Your task to perform on an android device: When is my next appointment? Image 0: 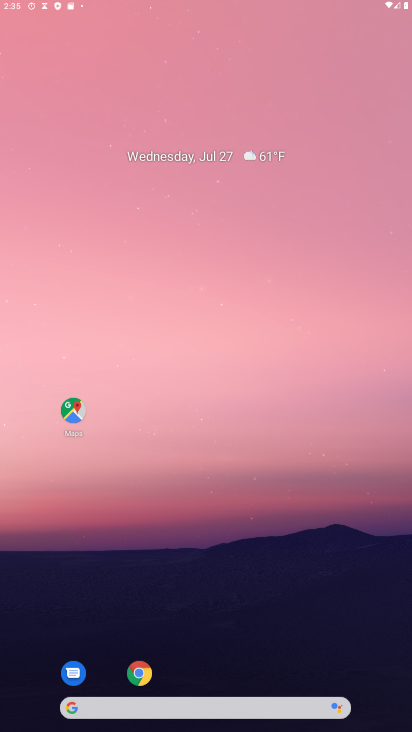
Step 0: click (105, 703)
Your task to perform on an android device: When is my next appointment? Image 1: 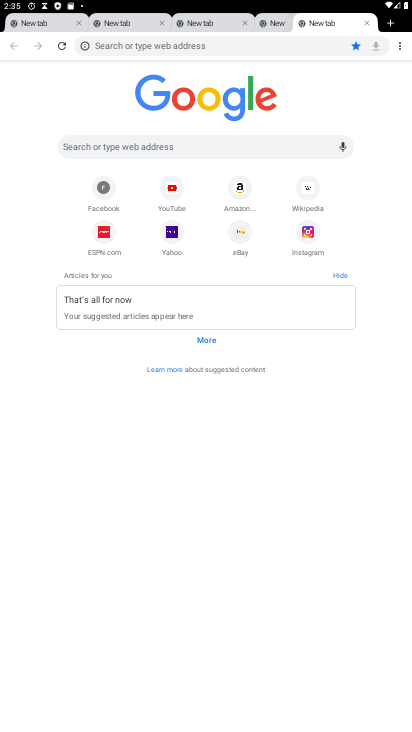
Step 1: press home button
Your task to perform on an android device: When is my next appointment? Image 2: 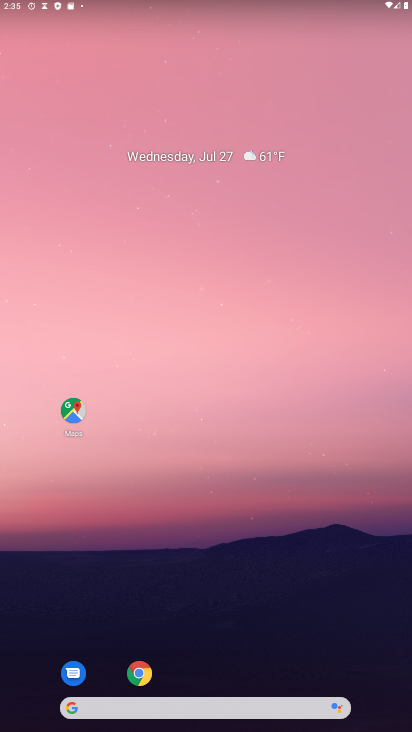
Step 2: drag from (136, 396) to (250, 17)
Your task to perform on an android device: When is my next appointment? Image 3: 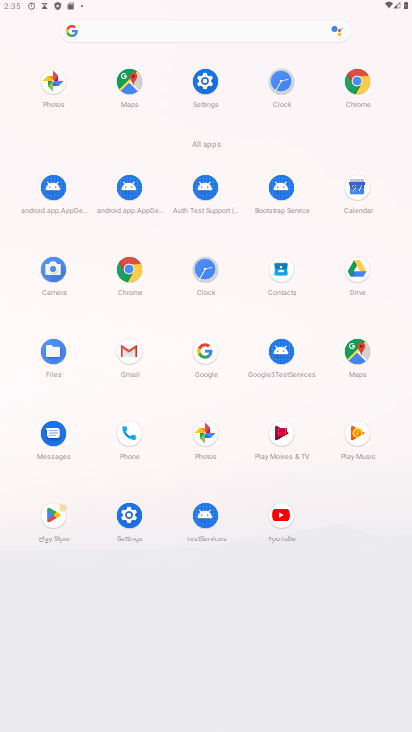
Step 3: click (352, 195)
Your task to perform on an android device: When is my next appointment? Image 4: 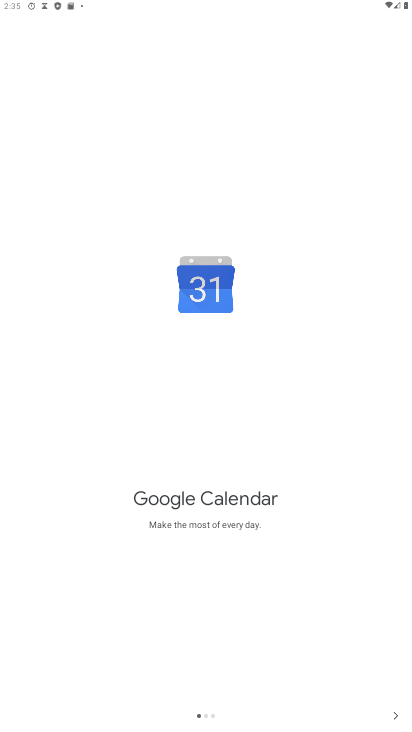
Step 4: click (395, 707)
Your task to perform on an android device: When is my next appointment? Image 5: 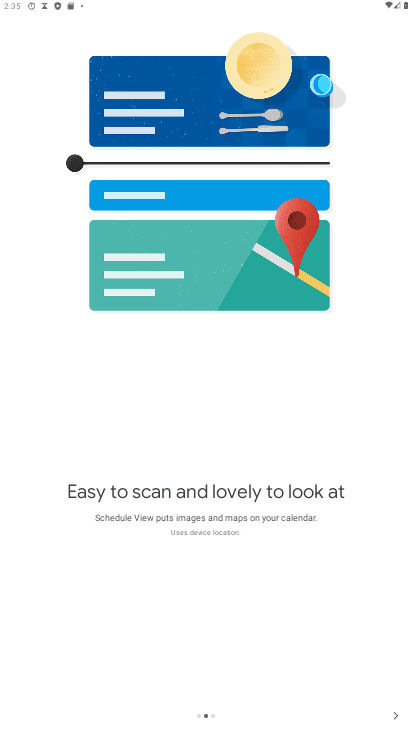
Step 5: click (393, 716)
Your task to perform on an android device: When is my next appointment? Image 6: 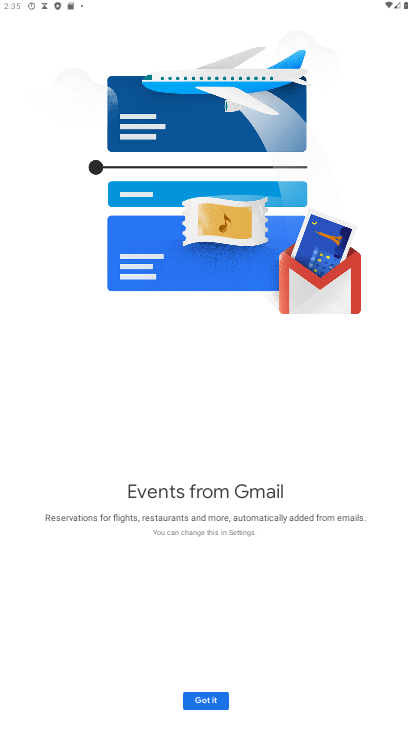
Step 6: click (218, 693)
Your task to perform on an android device: When is my next appointment? Image 7: 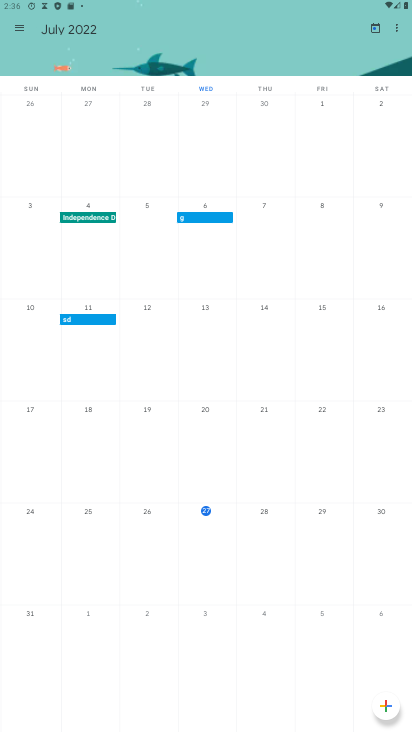
Step 7: click (27, 24)
Your task to perform on an android device: When is my next appointment? Image 8: 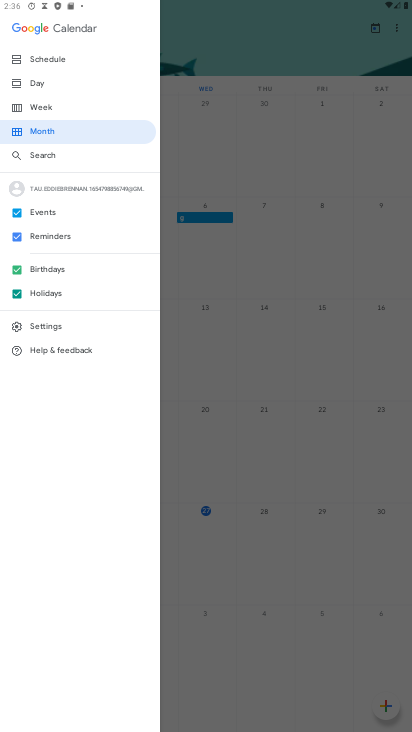
Step 8: click (281, 46)
Your task to perform on an android device: When is my next appointment? Image 9: 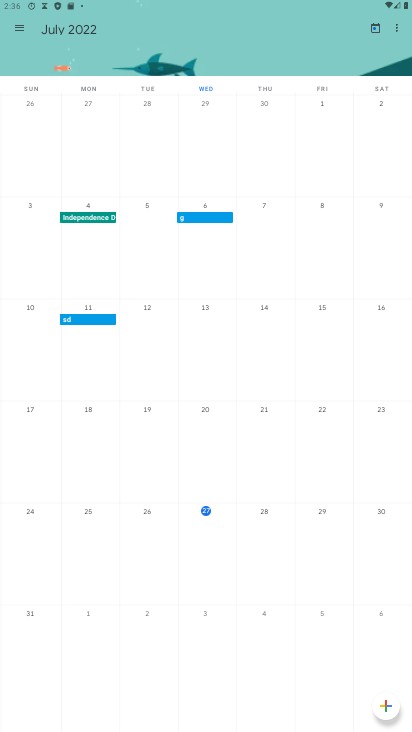
Step 9: click (78, 12)
Your task to perform on an android device: When is my next appointment? Image 10: 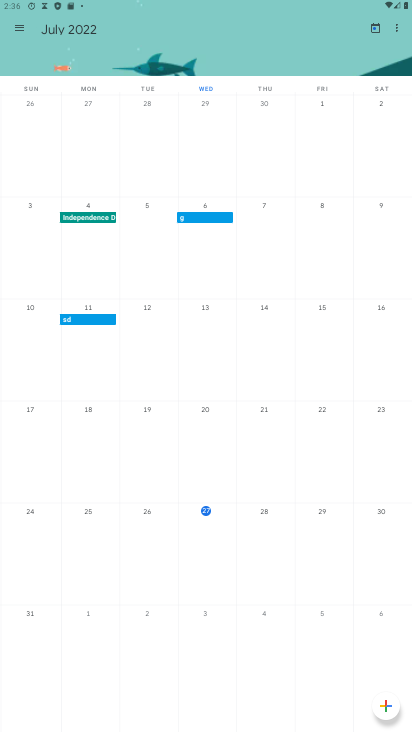
Step 10: click (31, 27)
Your task to perform on an android device: When is my next appointment? Image 11: 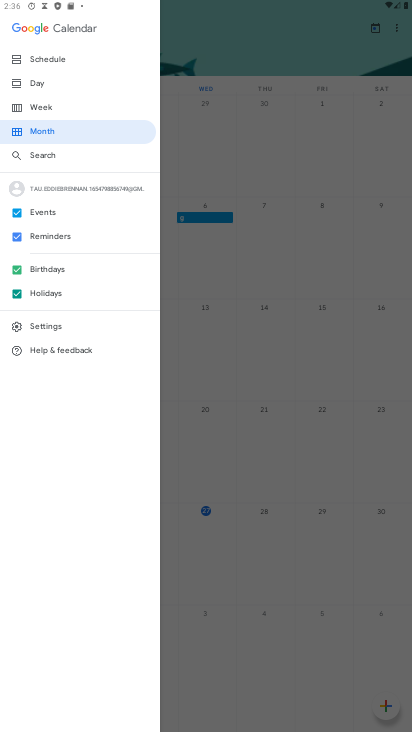
Step 11: click (46, 112)
Your task to perform on an android device: When is my next appointment? Image 12: 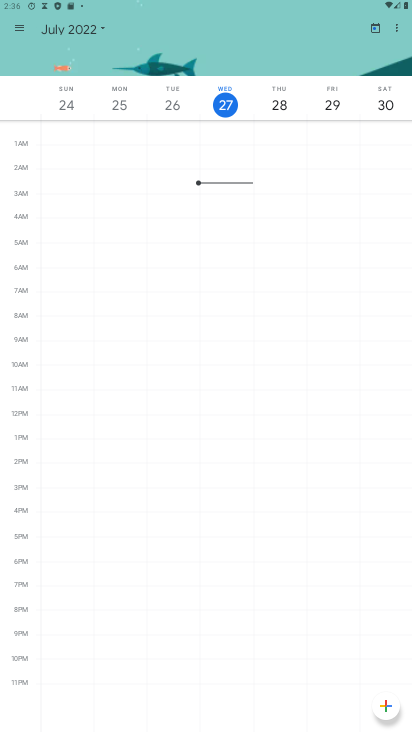
Step 12: click (23, 26)
Your task to perform on an android device: When is my next appointment? Image 13: 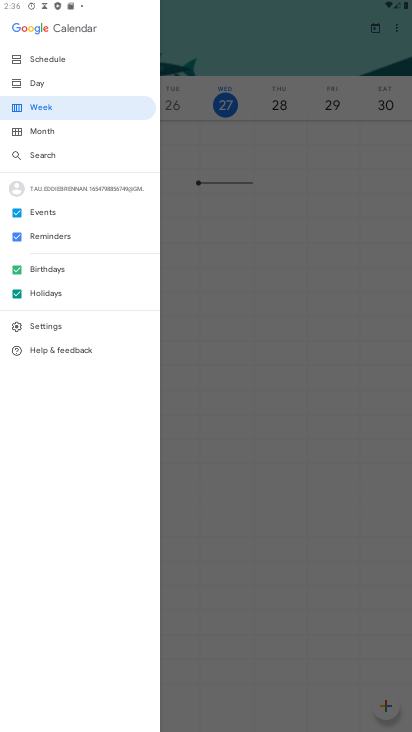
Step 13: click (81, 60)
Your task to perform on an android device: When is my next appointment? Image 14: 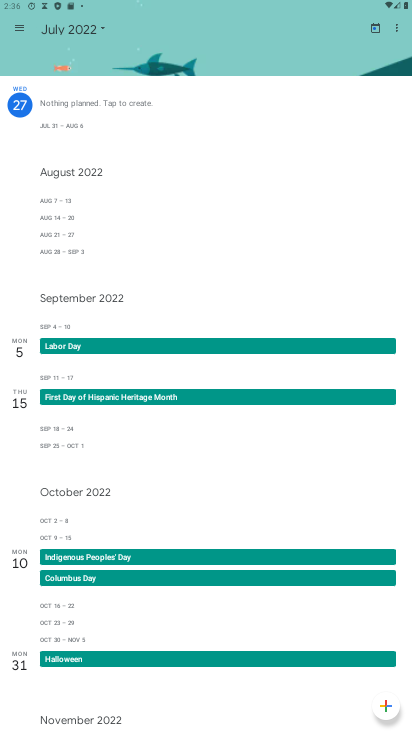
Step 14: task complete